Your task to perform on an android device: Is it going to rain this weekend? Image 0: 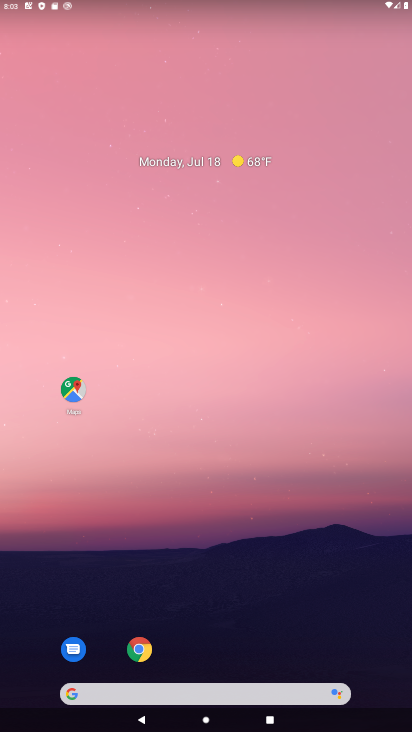
Step 0: click (172, 702)
Your task to perform on an android device: Is it going to rain this weekend? Image 1: 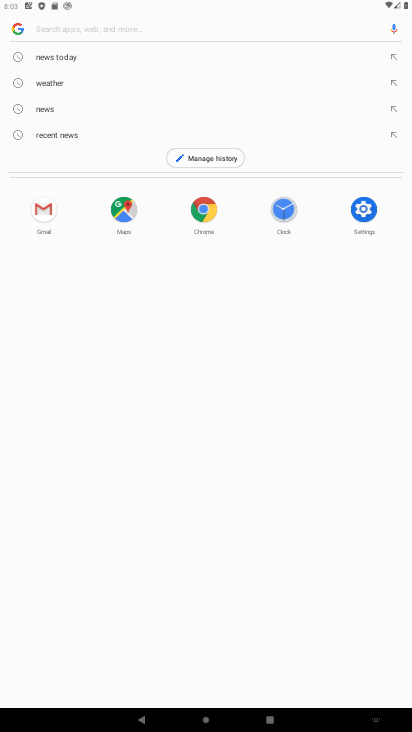
Step 1: type "Is it going to rain this weekend?"
Your task to perform on an android device: Is it going to rain this weekend? Image 2: 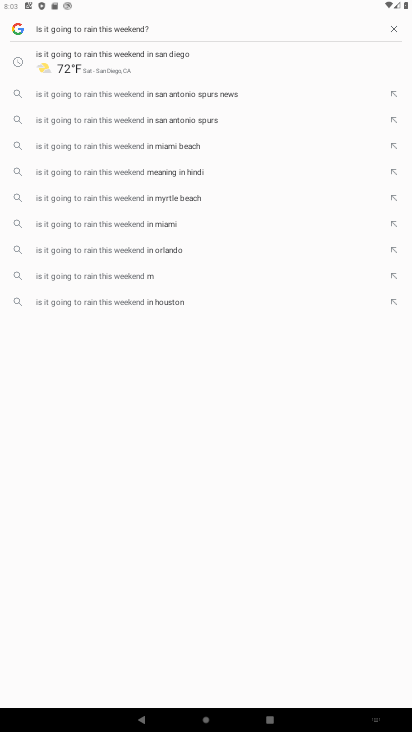
Step 2: press enter
Your task to perform on an android device: Is it going to rain this weekend? Image 3: 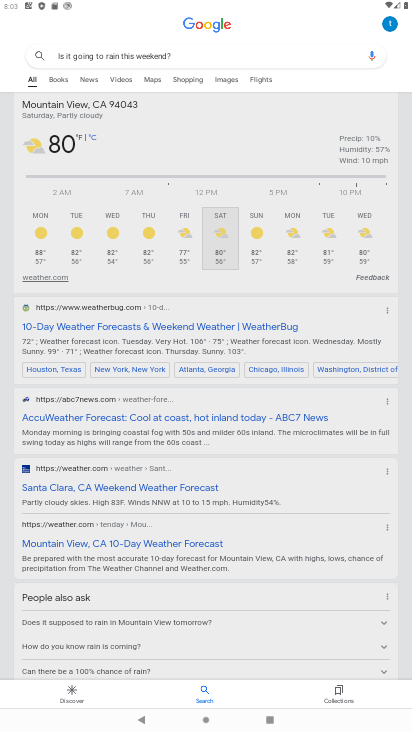
Step 3: task complete